Your task to perform on an android device: see tabs open on other devices in the chrome app Image 0: 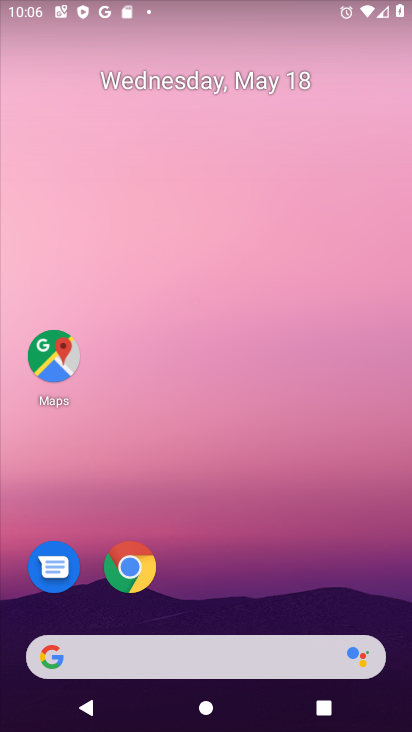
Step 0: click (140, 571)
Your task to perform on an android device: see tabs open on other devices in the chrome app Image 1: 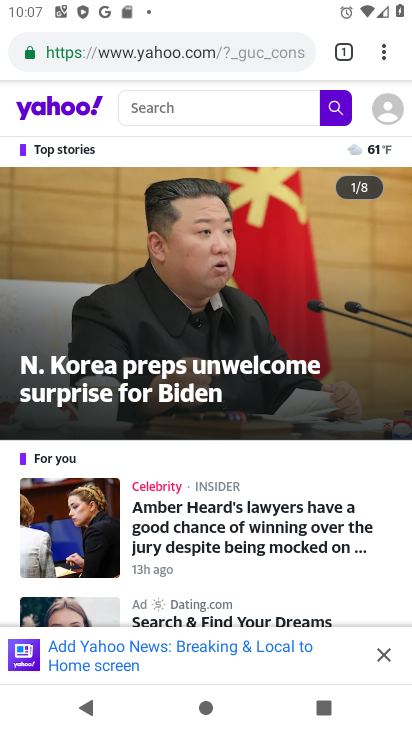
Step 1: task complete